Your task to perform on an android device: toggle javascript in the chrome app Image 0: 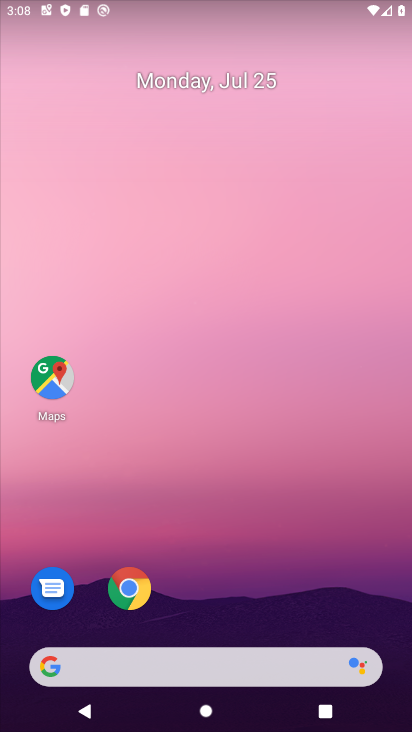
Step 0: click (119, 597)
Your task to perform on an android device: toggle javascript in the chrome app Image 1: 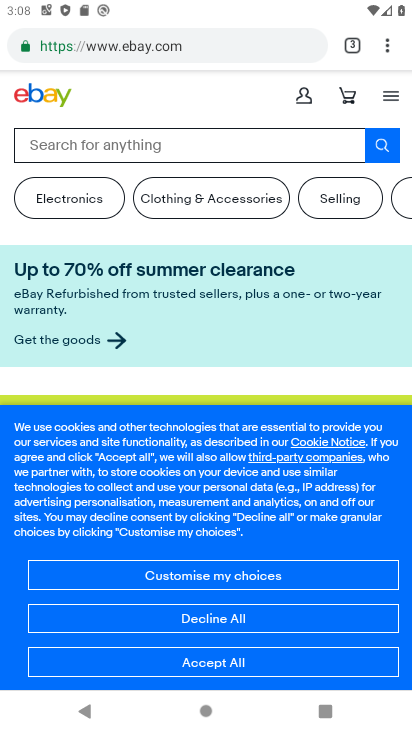
Step 1: click (376, 54)
Your task to perform on an android device: toggle javascript in the chrome app Image 2: 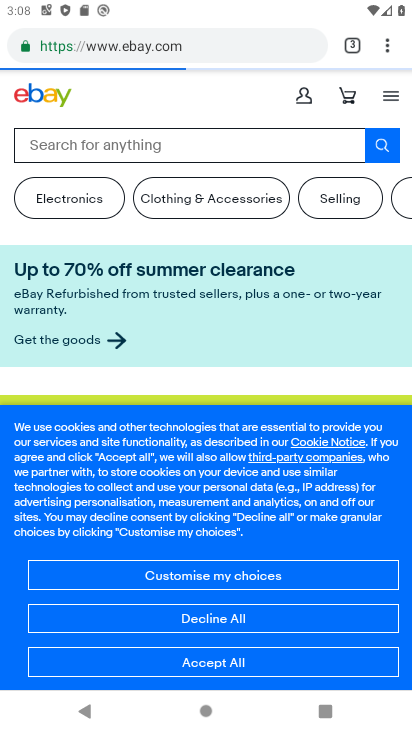
Step 2: click (380, 53)
Your task to perform on an android device: toggle javascript in the chrome app Image 3: 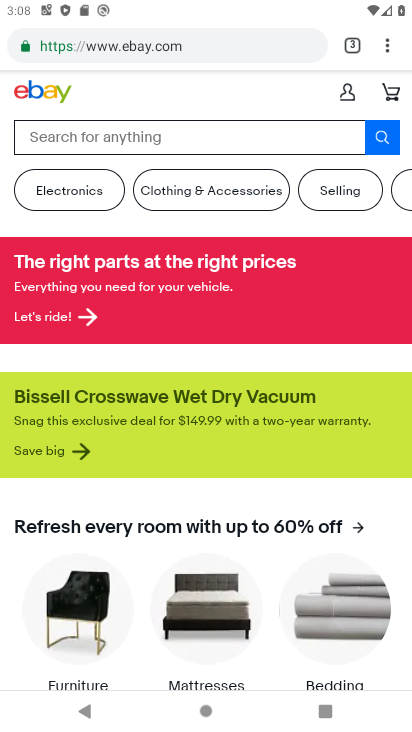
Step 3: drag from (380, 53) to (243, 611)
Your task to perform on an android device: toggle javascript in the chrome app Image 4: 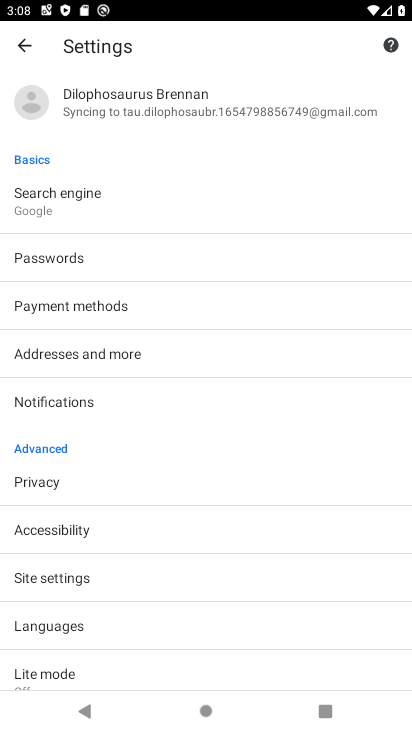
Step 4: click (86, 559)
Your task to perform on an android device: toggle javascript in the chrome app Image 5: 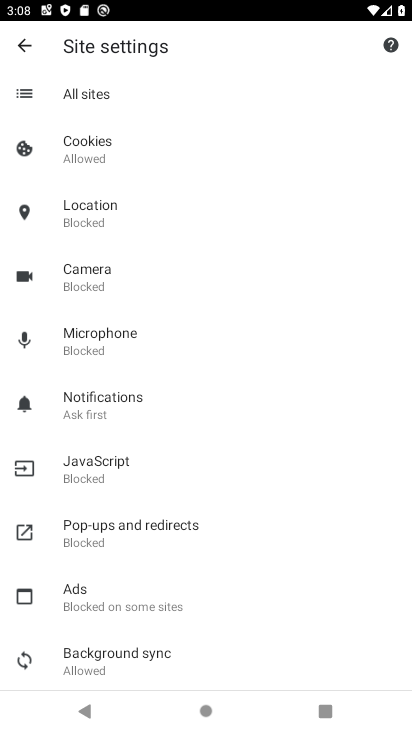
Step 5: click (106, 489)
Your task to perform on an android device: toggle javascript in the chrome app Image 6: 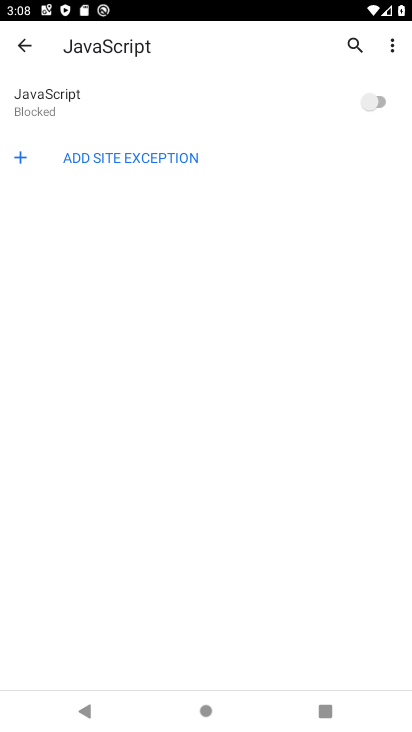
Step 6: click (387, 103)
Your task to perform on an android device: toggle javascript in the chrome app Image 7: 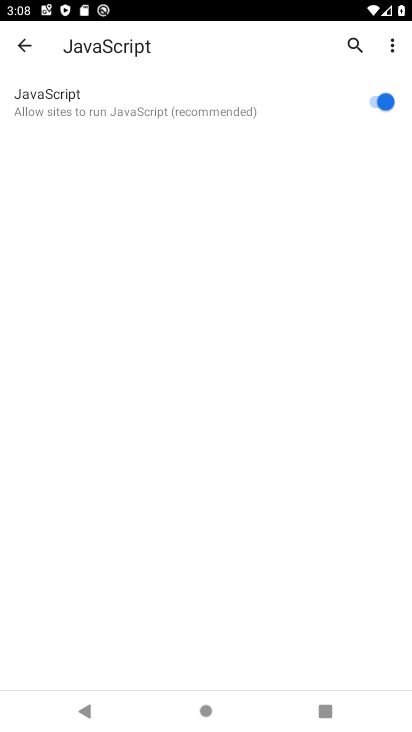
Step 7: task complete